Your task to perform on an android device: find photos in the google photos app Image 0: 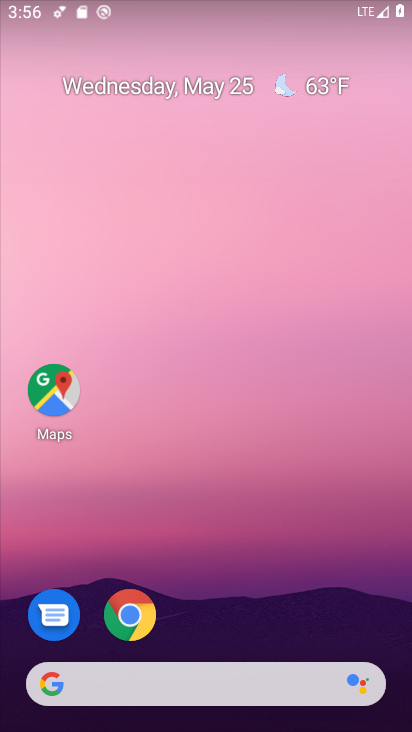
Step 0: drag from (215, 451) to (196, 31)
Your task to perform on an android device: find photos in the google photos app Image 1: 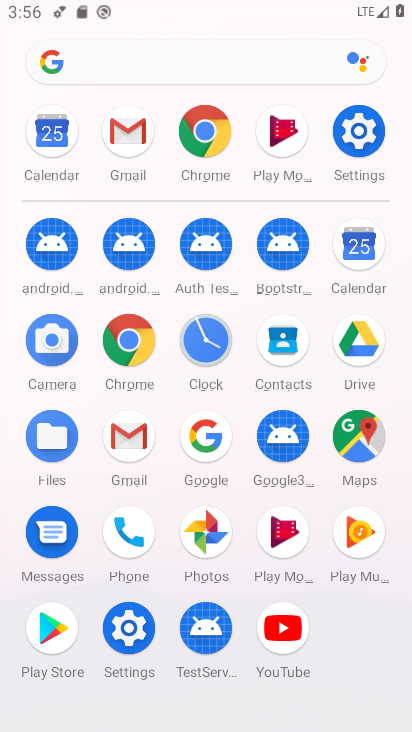
Step 1: click (198, 519)
Your task to perform on an android device: find photos in the google photos app Image 2: 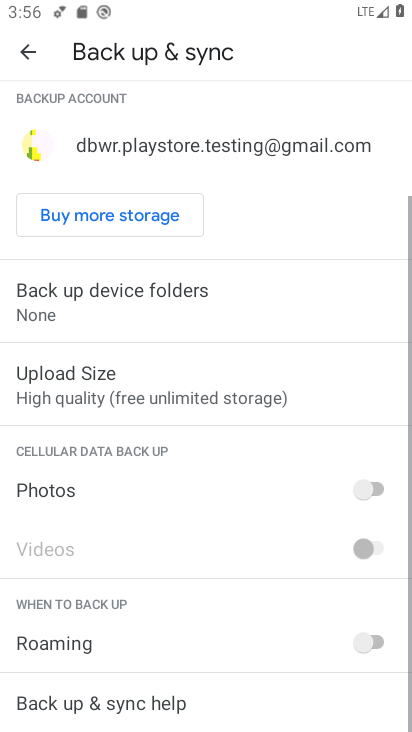
Step 2: click (31, 55)
Your task to perform on an android device: find photos in the google photos app Image 3: 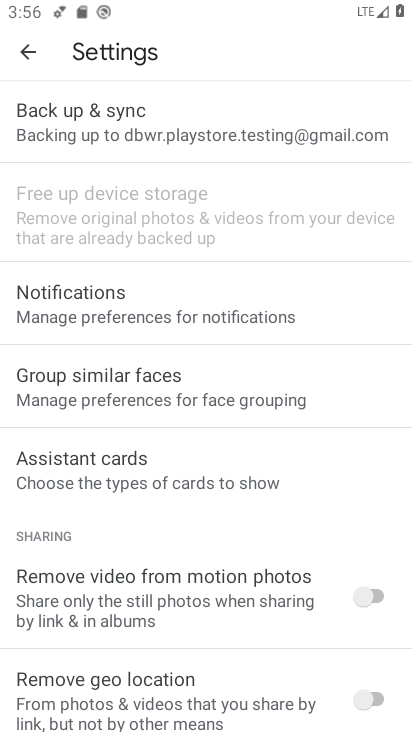
Step 3: click (27, 51)
Your task to perform on an android device: find photos in the google photos app Image 4: 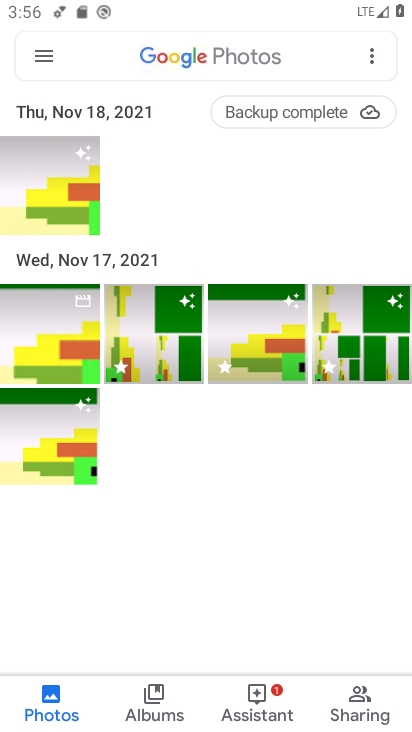
Step 4: click (66, 693)
Your task to perform on an android device: find photos in the google photos app Image 5: 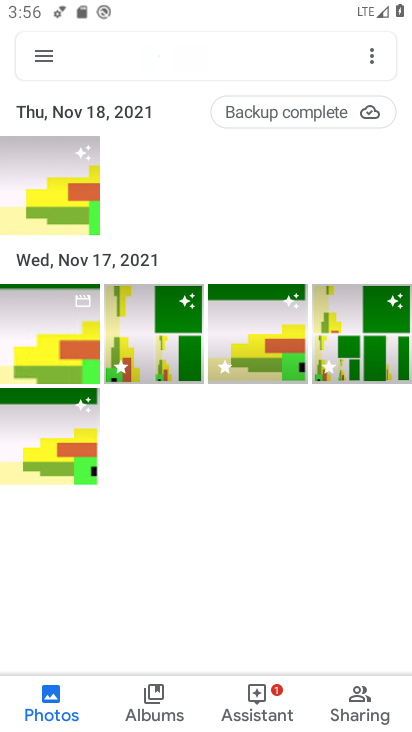
Step 5: task complete